Your task to perform on an android device: turn on location history Image 0: 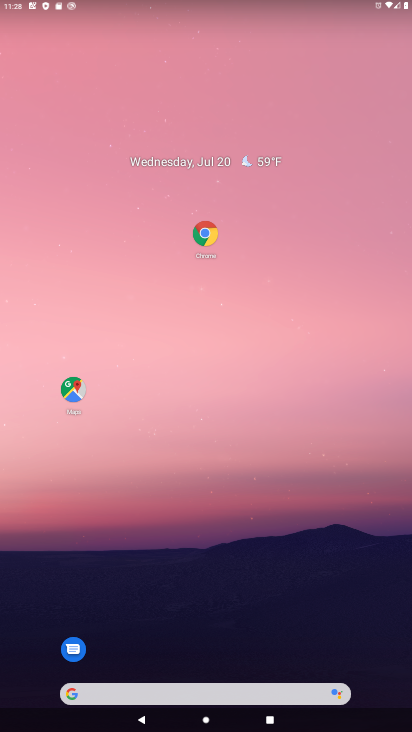
Step 0: drag from (228, 646) to (275, 89)
Your task to perform on an android device: turn on location history Image 1: 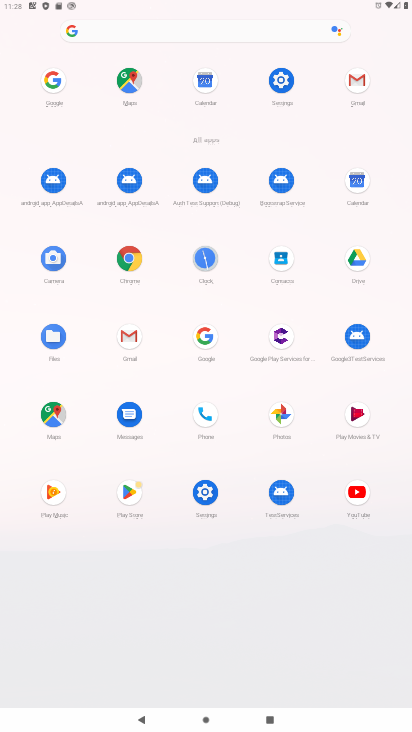
Step 1: click (278, 84)
Your task to perform on an android device: turn on location history Image 2: 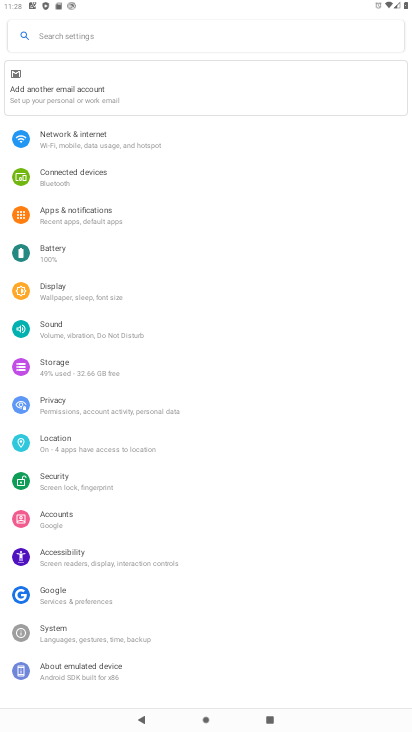
Step 2: click (59, 450)
Your task to perform on an android device: turn on location history Image 3: 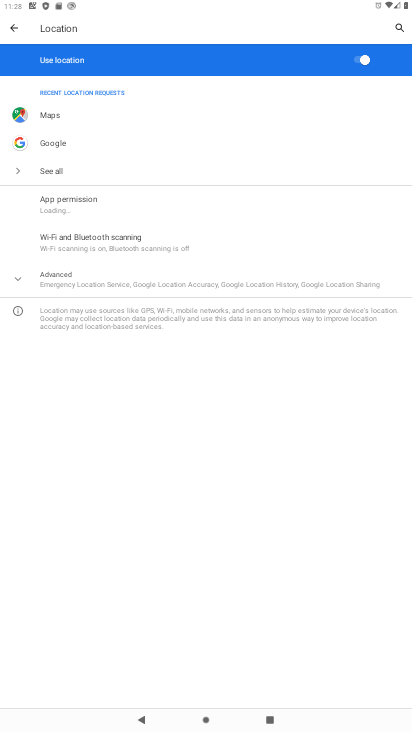
Step 3: click (68, 281)
Your task to perform on an android device: turn on location history Image 4: 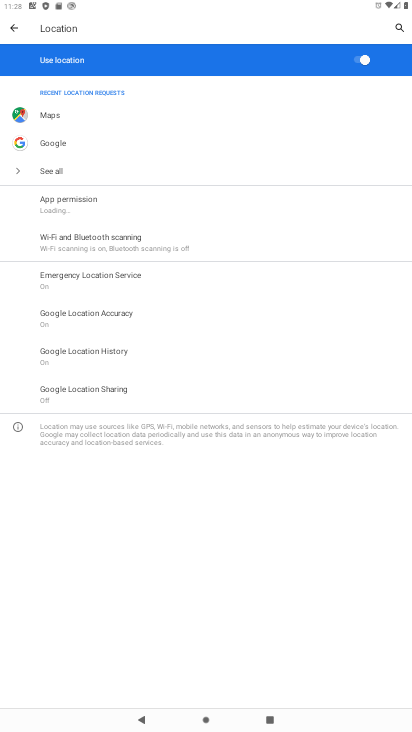
Step 4: click (124, 354)
Your task to perform on an android device: turn on location history Image 5: 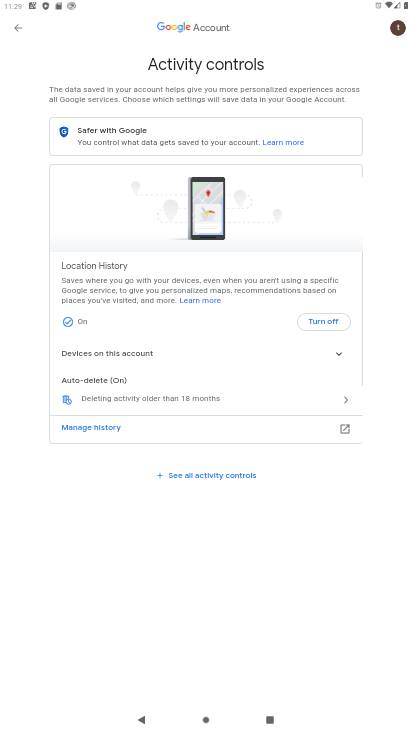
Step 5: task complete